Your task to perform on an android device: Open wifi settings Image 0: 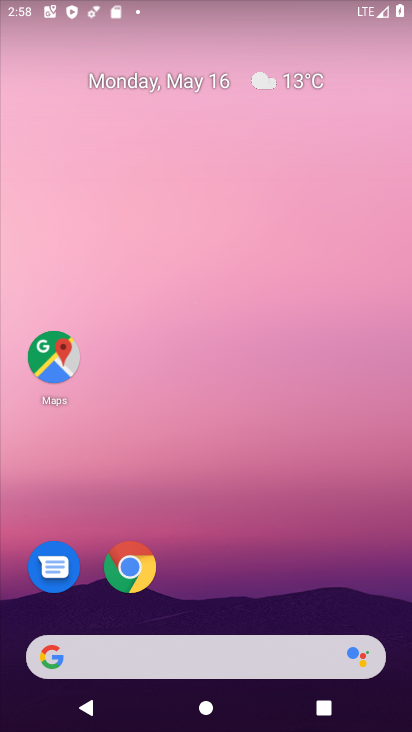
Step 0: drag from (260, 576) to (278, 123)
Your task to perform on an android device: Open wifi settings Image 1: 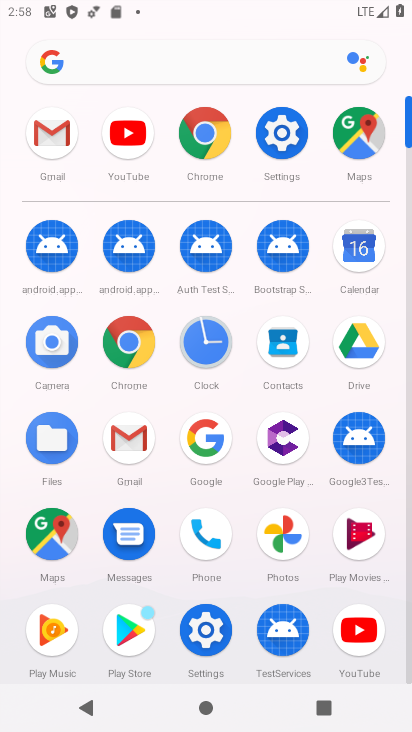
Step 1: click (293, 122)
Your task to perform on an android device: Open wifi settings Image 2: 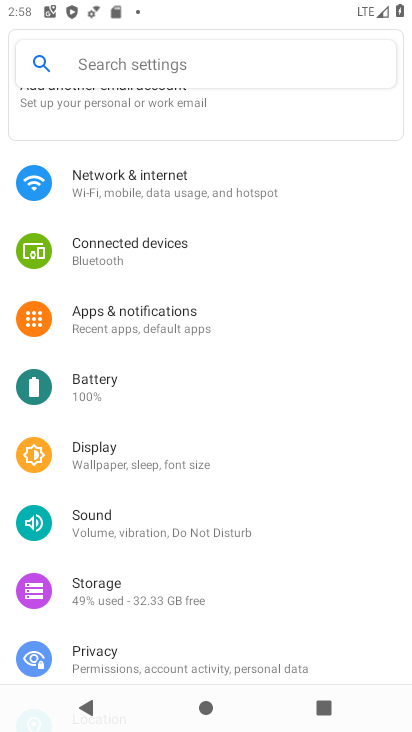
Step 2: click (171, 179)
Your task to perform on an android device: Open wifi settings Image 3: 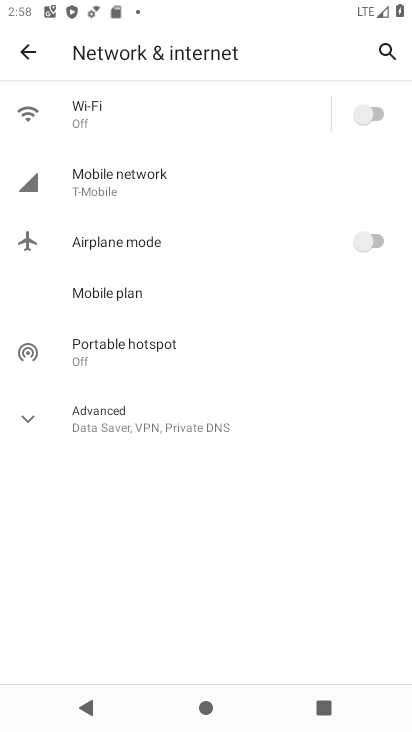
Step 3: click (154, 120)
Your task to perform on an android device: Open wifi settings Image 4: 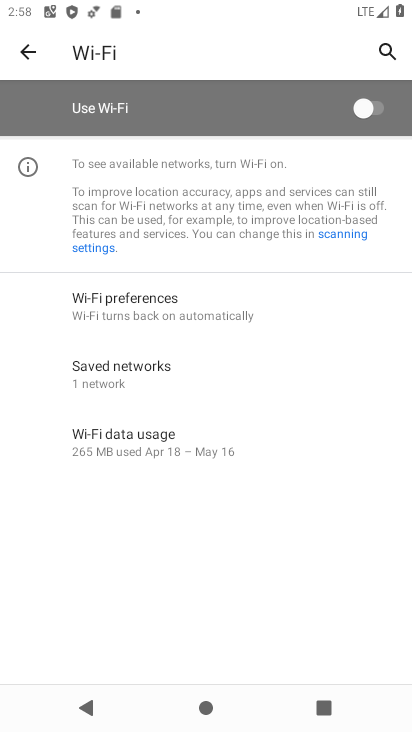
Step 4: click (386, 108)
Your task to perform on an android device: Open wifi settings Image 5: 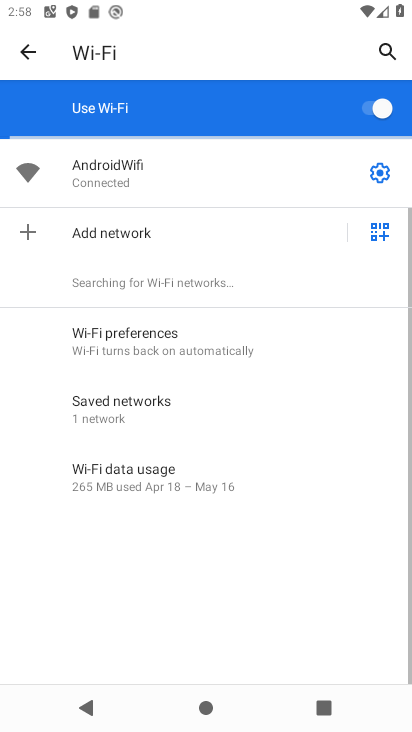
Step 5: click (381, 162)
Your task to perform on an android device: Open wifi settings Image 6: 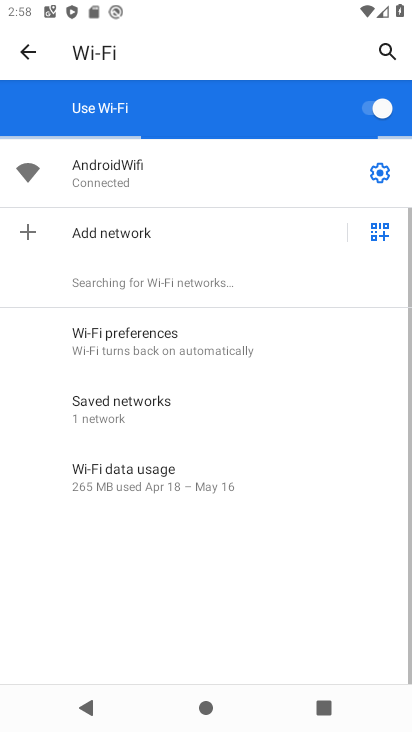
Step 6: click (378, 169)
Your task to perform on an android device: Open wifi settings Image 7: 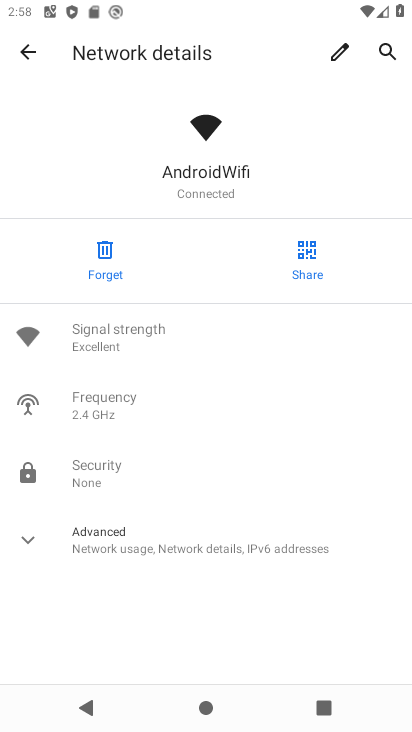
Step 7: task complete